Your task to perform on an android device: What's the weather today? Image 0: 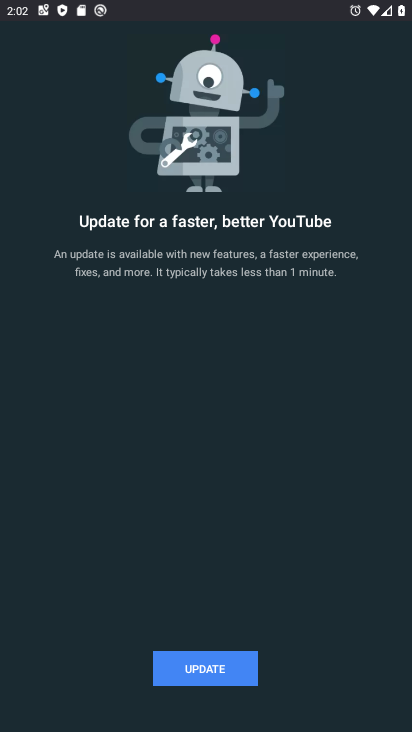
Step 0: press home button
Your task to perform on an android device: What's the weather today? Image 1: 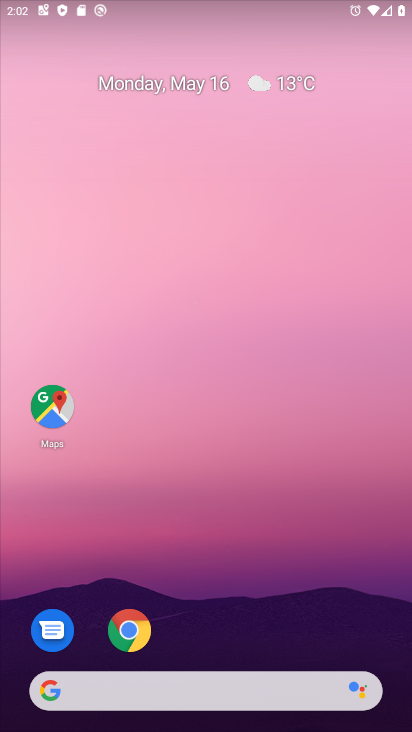
Step 1: drag from (284, 395) to (284, 357)
Your task to perform on an android device: What's the weather today? Image 2: 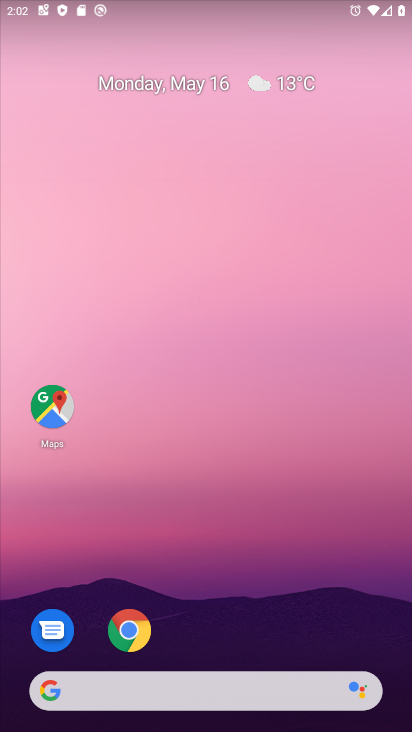
Step 2: drag from (224, 557) to (218, 227)
Your task to perform on an android device: What's the weather today? Image 3: 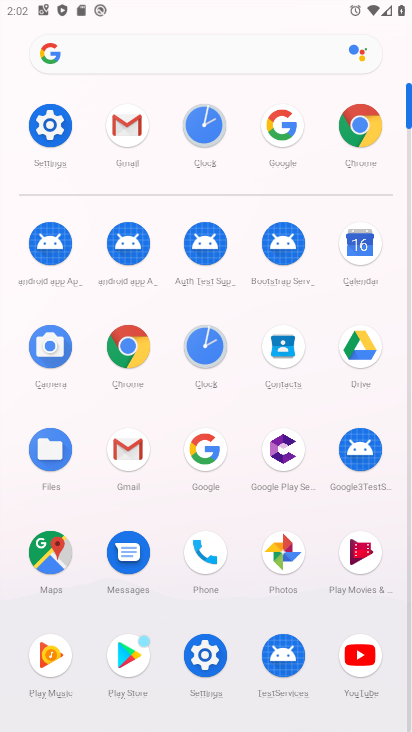
Step 3: click (207, 460)
Your task to perform on an android device: What's the weather today? Image 4: 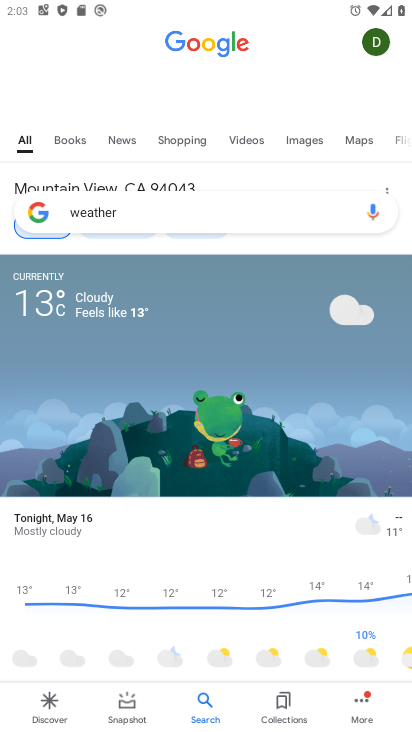
Step 4: drag from (147, 304) to (155, 599)
Your task to perform on an android device: What's the weather today? Image 5: 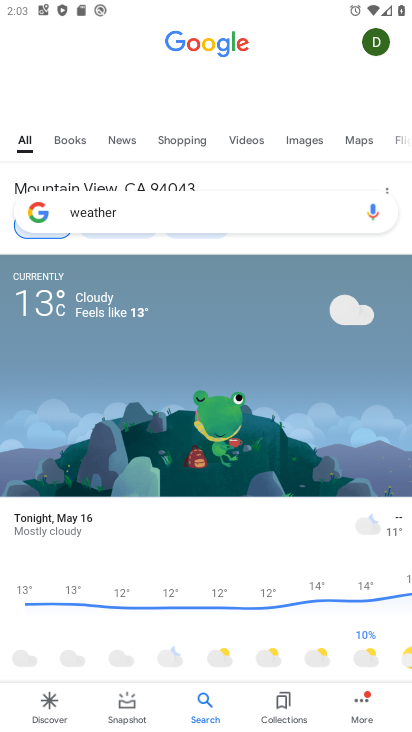
Step 5: drag from (208, 293) to (219, 578)
Your task to perform on an android device: What's the weather today? Image 6: 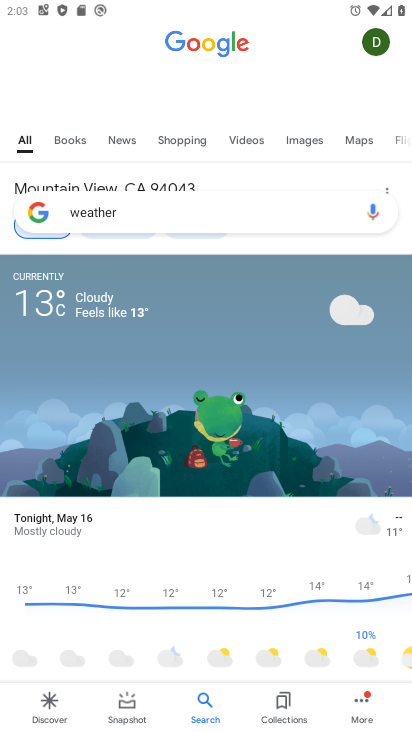
Step 6: click (159, 196)
Your task to perform on an android device: What's the weather today? Image 7: 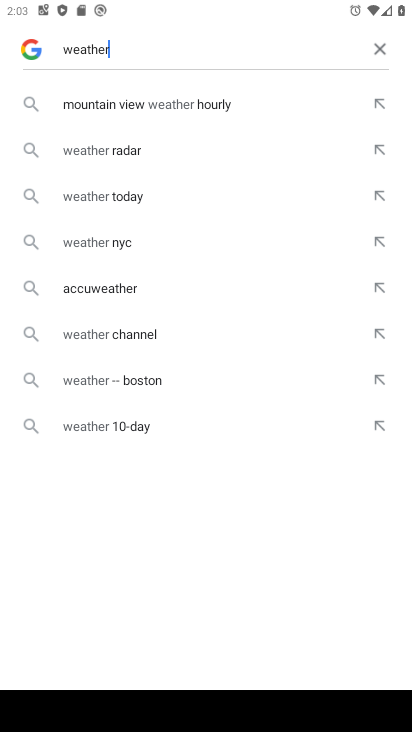
Step 7: click (133, 189)
Your task to perform on an android device: What's the weather today? Image 8: 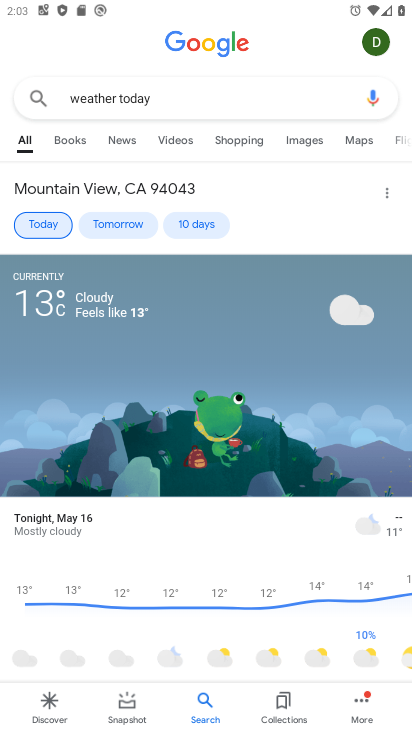
Step 8: task complete